Your task to perform on an android device: Open privacy settings Image 0: 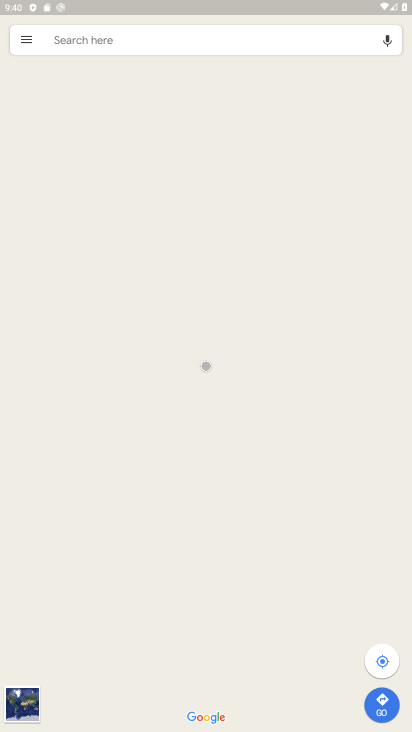
Step 0: press home button
Your task to perform on an android device: Open privacy settings Image 1: 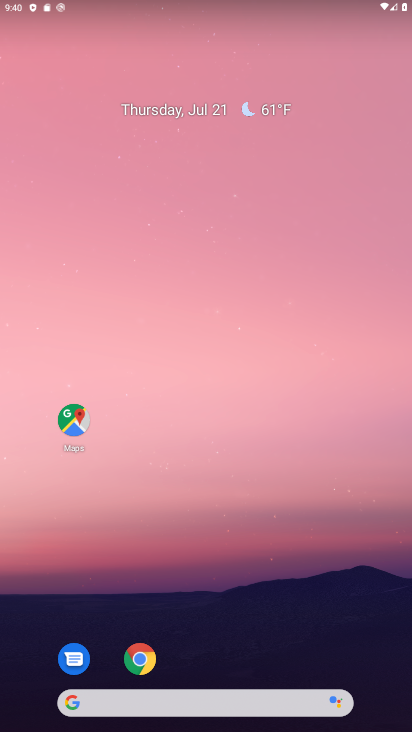
Step 1: click (140, 653)
Your task to perform on an android device: Open privacy settings Image 2: 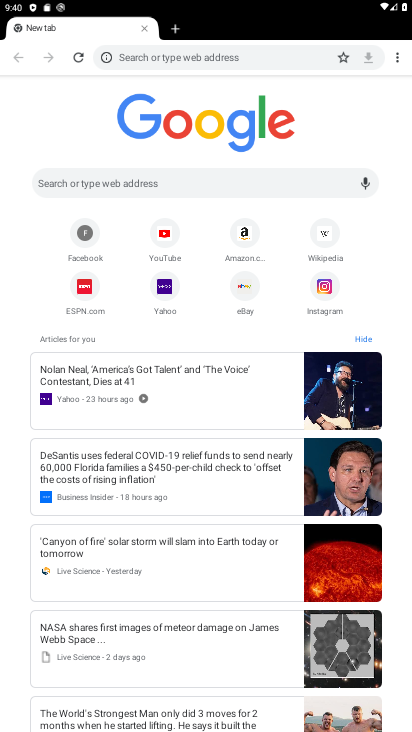
Step 2: click (399, 53)
Your task to perform on an android device: Open privacy settings Image 3: 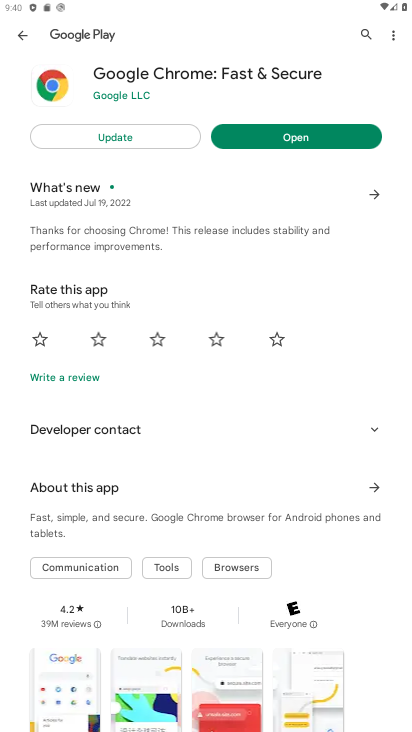
Step 3: click (301, 132)
Your task to perform on an android device: Open privacy settings Image 4: 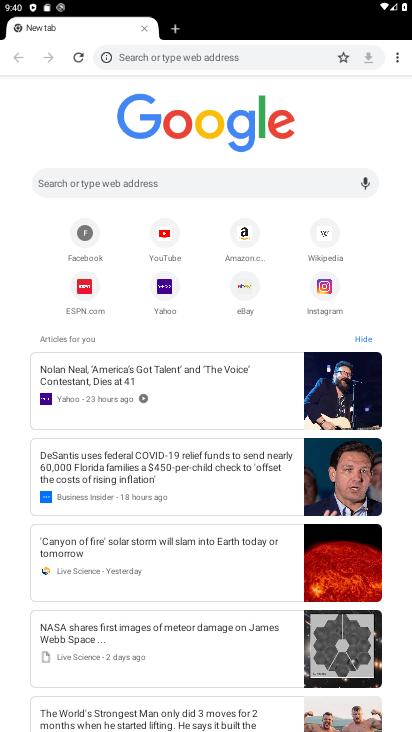
Step 4: click (394, 53)
Your task to perform on an android device: Open privacy settings Image 5: 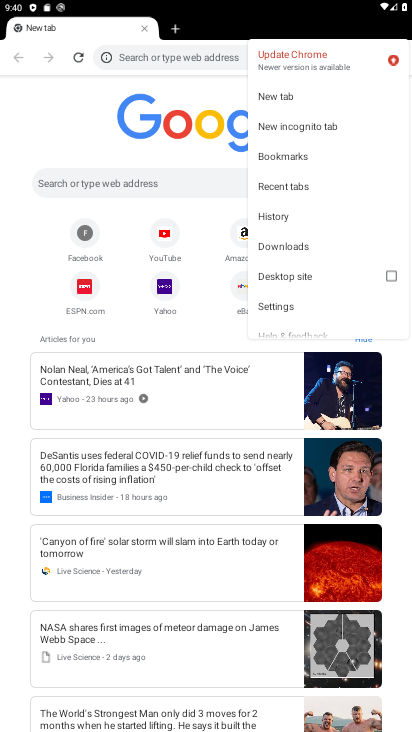
Step 5: click (283, 308)
Your task to perform on an android device: Open privacy settings Image 6: 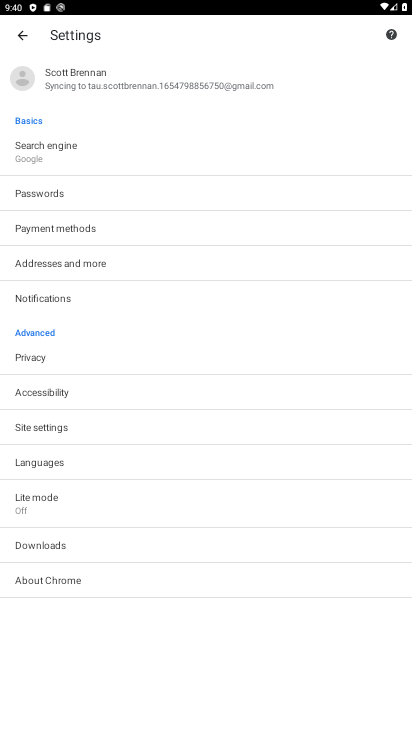
Step 6: click (49, 365)
Your task to perform on an android device: Open privacy settings Image 7: 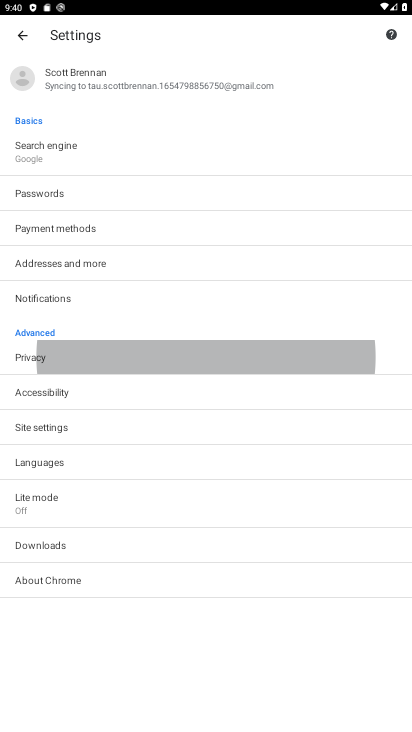
Step 7: click (49, 359)
Your task to perform on an android device: Open privacy settings Image 8: 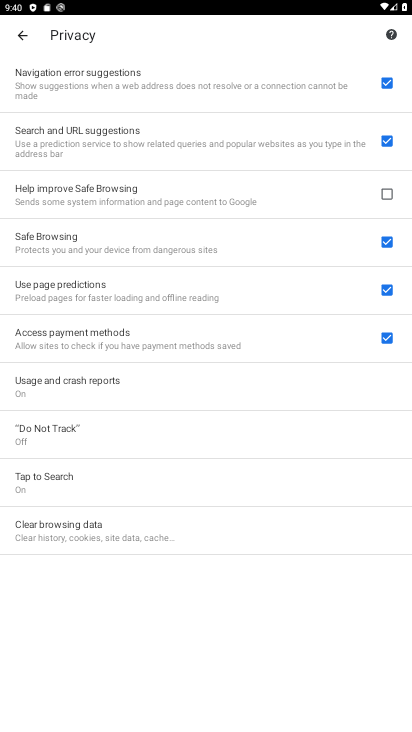
Step 8: task complete